Your task to perform on an android device: Search for sushi restaurants on Maps Image 0: 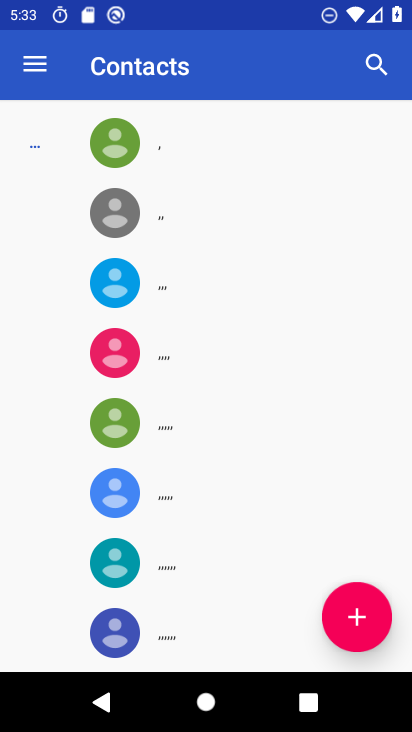
Step 0: press home button
Your task to perform on an android device: Search for sushi restaurants on Maps Image 1: 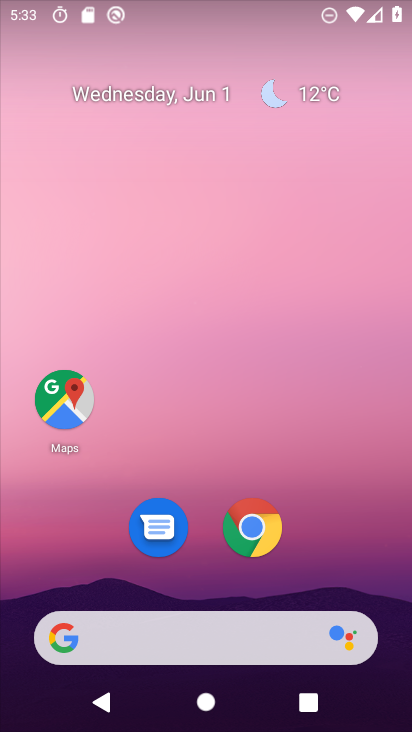
Step 1: click (75, 405)
Your task to perform on an android device: Search for sushi restaurants on Maps Image 2: 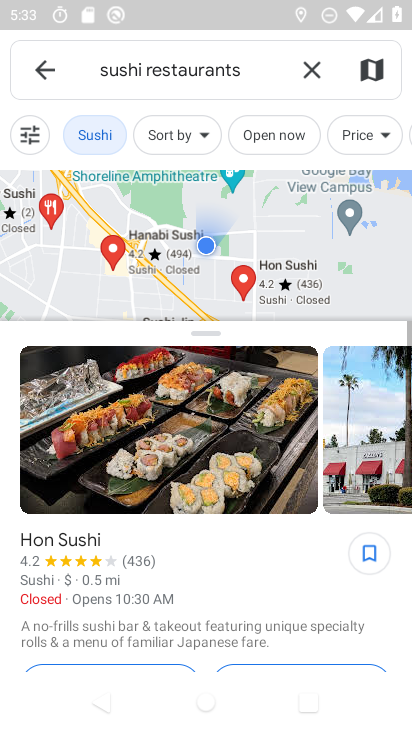
Step 2: task complete